Your task to perform on an android device: Open Google Maps and go to "Timeline" Image 0: 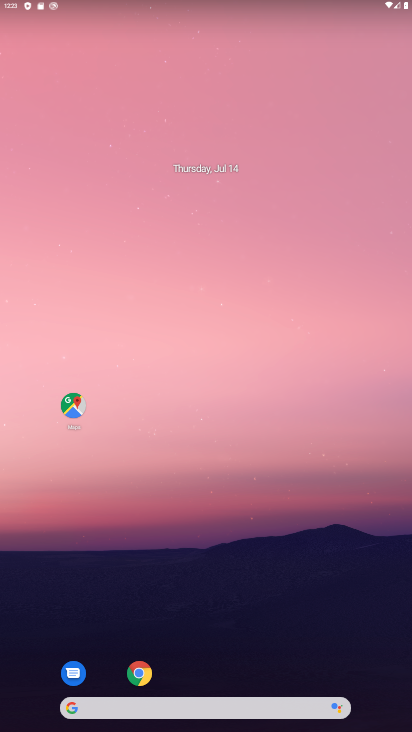
Step 0: click (66, 408)
Your task to perform on an android device: Open Google Maps and go to "Timeline" Image 1: 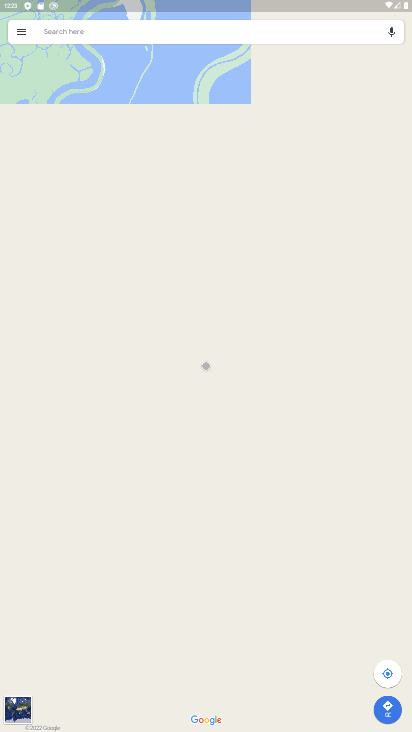
Step 1: click (17, 38)
Your task to perform on an android device: Open Google Maps and go to "Timeline" Image 2: 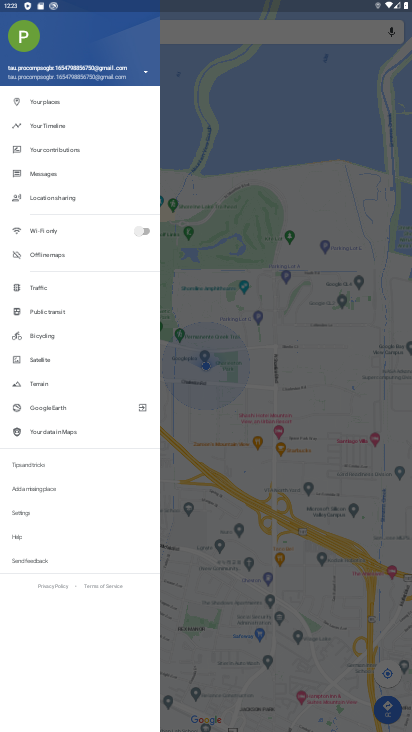
Step 2: click (59, 119)
Your task to perform on an android device: Open Google Maps and go to "Timeline" Image 3: 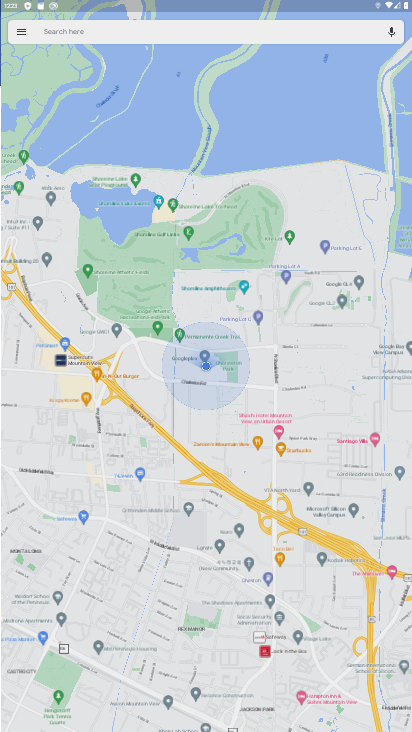
Step 3: task complete